Your task to perform on an android device: Do I have any events this weekend? Image 0: 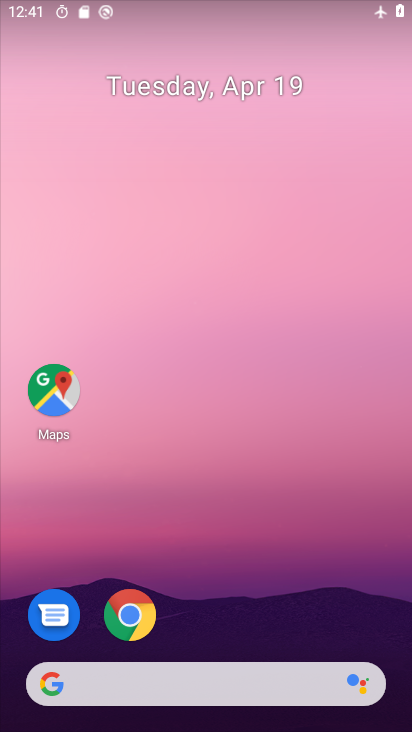
Step 0: drag from (370, 613) to (367, 200)
Your task to perform on an android device: Do I have any events this weekend? Image 1: 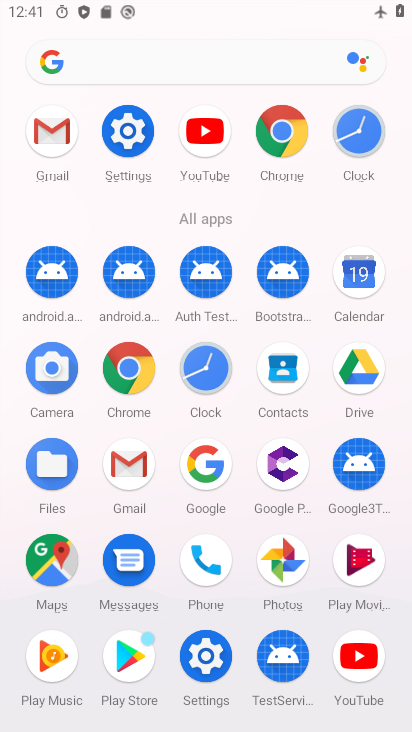
Step 1: click (366, 288)
Your task to perform on an android device: Do I have any events this weekend? Image 2: 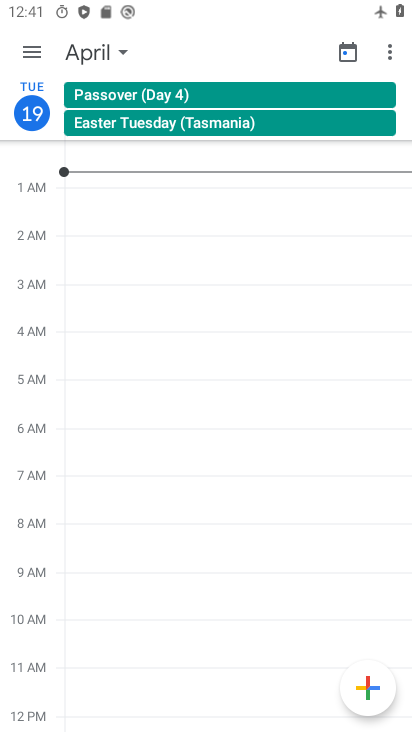
Step 2: click (119, 46)
Your task to perform on an android device: Do I have any events this weekend? Image 3: 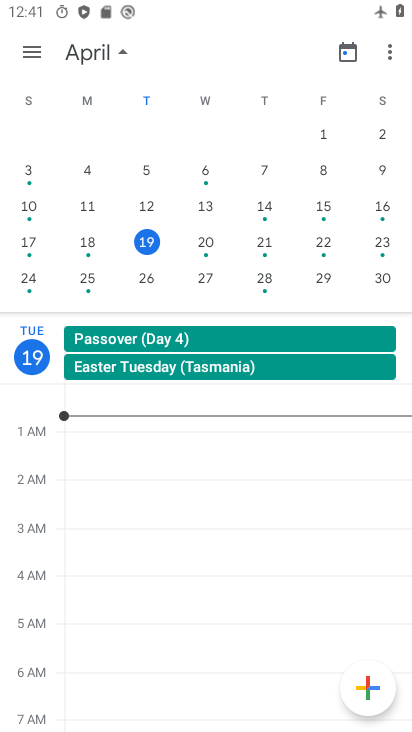
Step 3: click (382, 240)
Your task to perform on an android device: Do I have any events this weekend? Image 4: 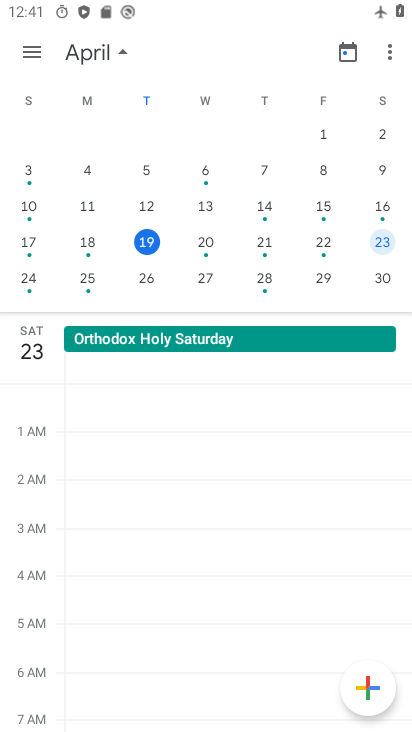
Step 4: task complete